Your task to perform on an android device: allow notifications from all sites in the chrome app Image 0: 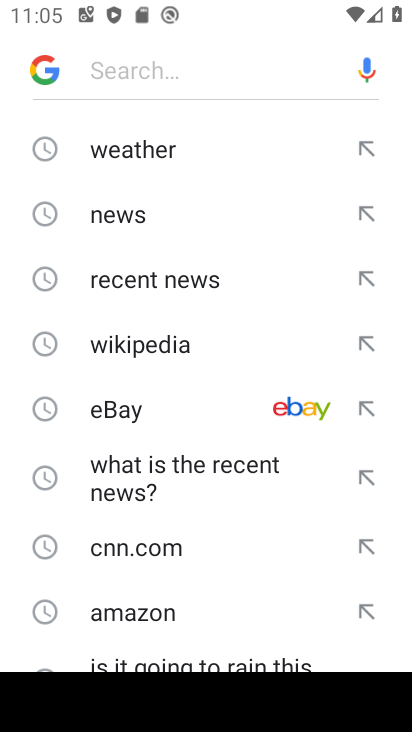
Step 0: click (355, 223)
Your task to perform on an android device: allow notifications from all sites in the chrome app Image 1: 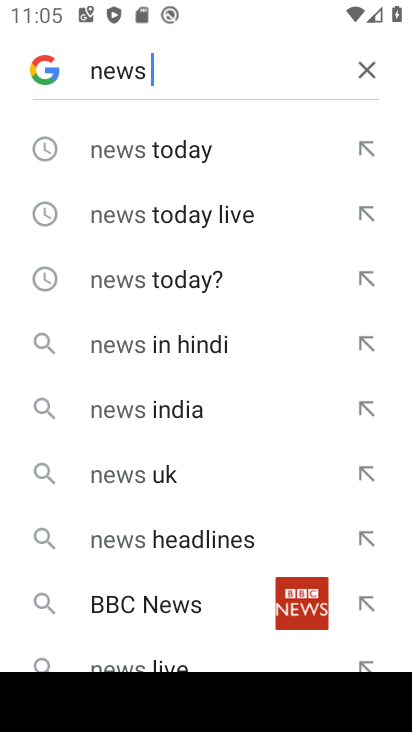
Step 1: press back button
Your task to perform on an android device: allow notifications from all sites in the chrome app Image 2: 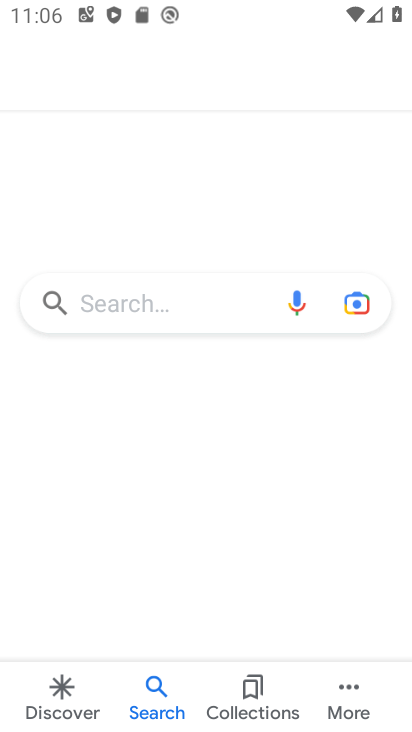
Step 2: drag from (265, 183) to (307, 417)
Your task to perform on an android device: allow notifications from all sites in the chrome app Image 3: 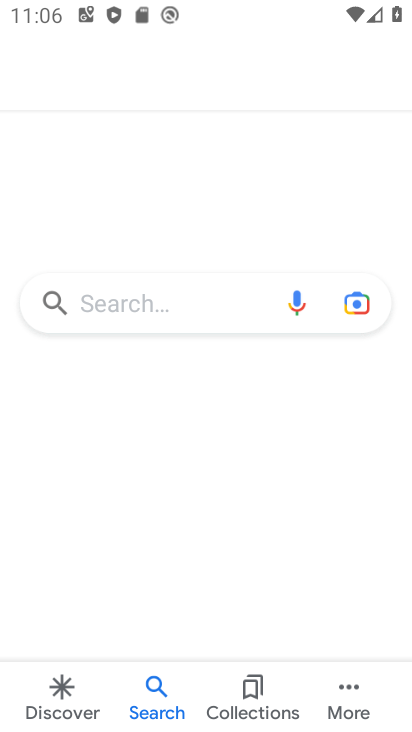
Step 3: drag from (295, 179) to (394, 407)
Your task to perform on an android device: allow notifications from all sites in the chrome app Image 4: 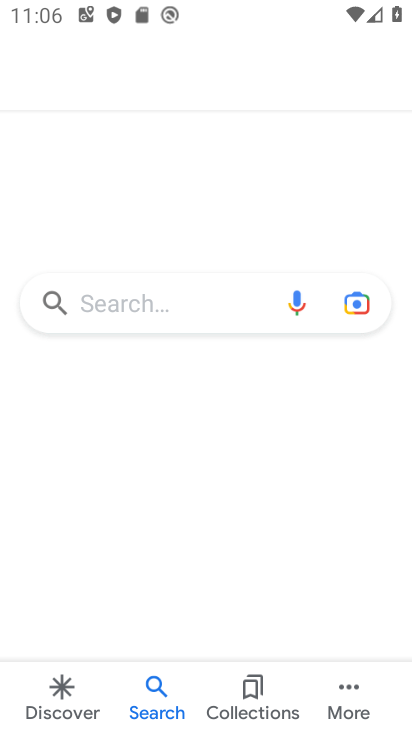
Step 4: press home button
Your task to perform on an android device: allow notifications from all sites in the chrome app Image 5: 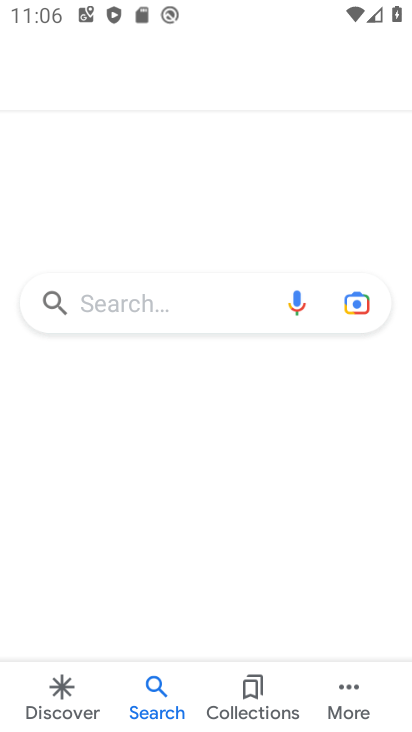
Step 5: drag from (394, 407) to (406, 470)
Your task to perform on an android device: allow notifications from all sites in the chrome app Image 6: 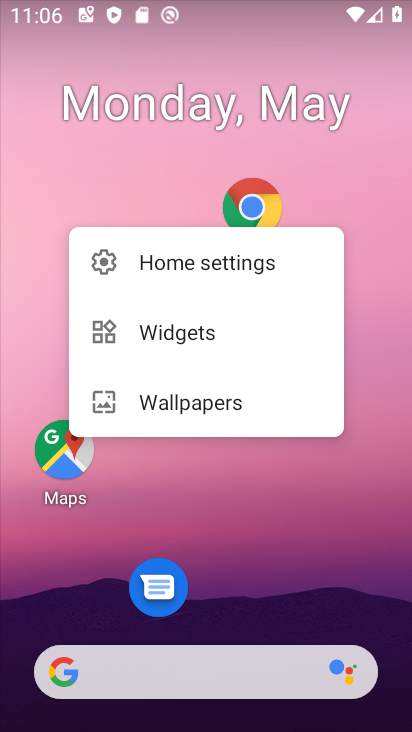
Step 6: drag from (313, 630) to (158, 27)
Your task to perform on an android device: allow notifications from all sites in the chrome app Image 7: 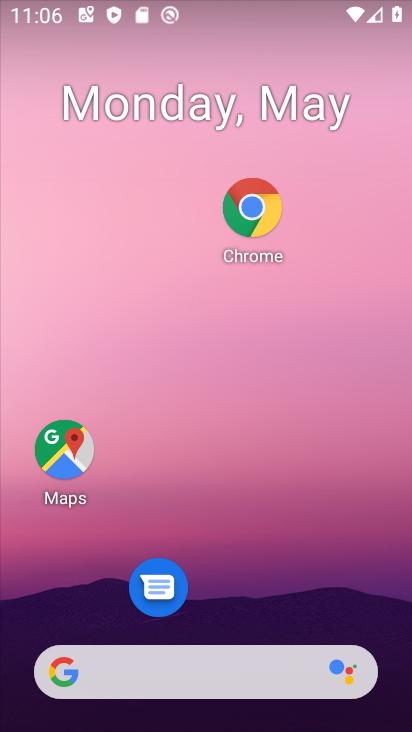
Step 7: click (44, 178)
Your task to perform on an android device: allow notifications from all sites in the chrome app Image 8: 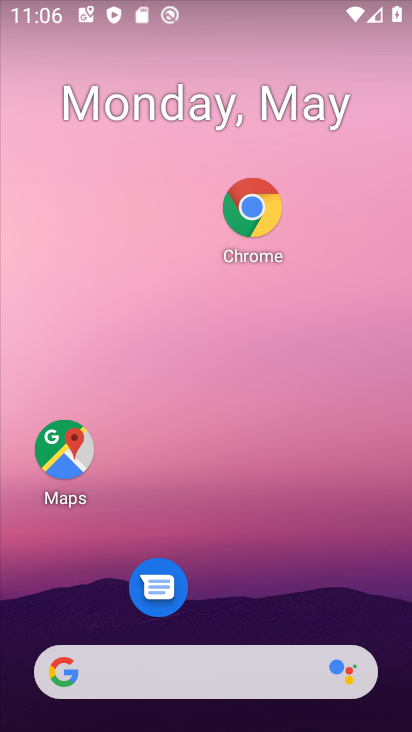
Step 8: drag from (278, 566) to (199, 2)
Your task to perform on an android device: allow notifications from all sites in the chrome app Image 9: 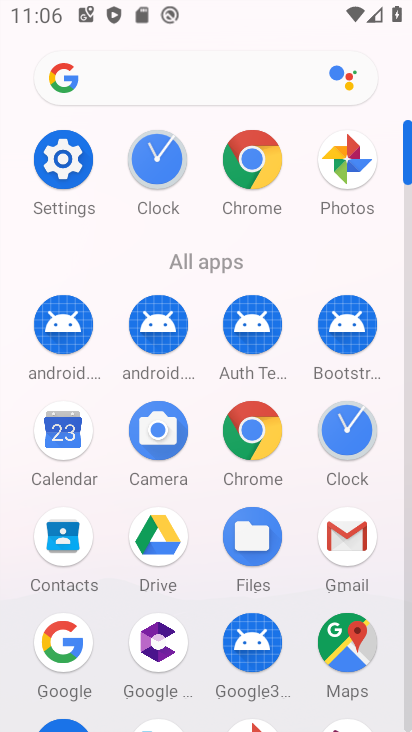
Step 9: click (264, 221)
Your task to perform on an android device: allow notifications from all sites in the chrome app Image 10: 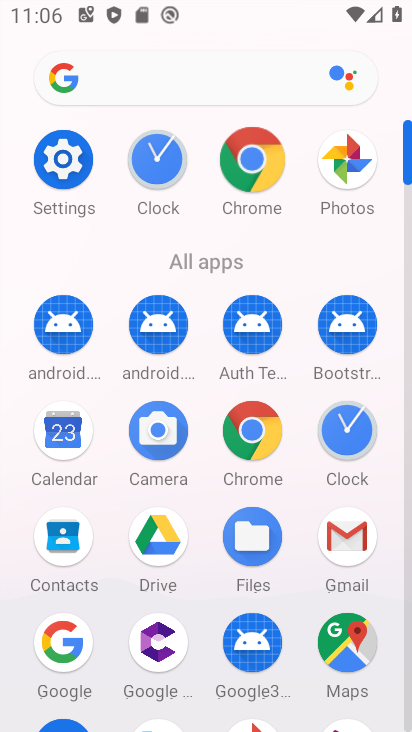
Step 10: click (259, 184)
Your task to perform on an android device: allow notifications from all sites in the chrome app Image 11: 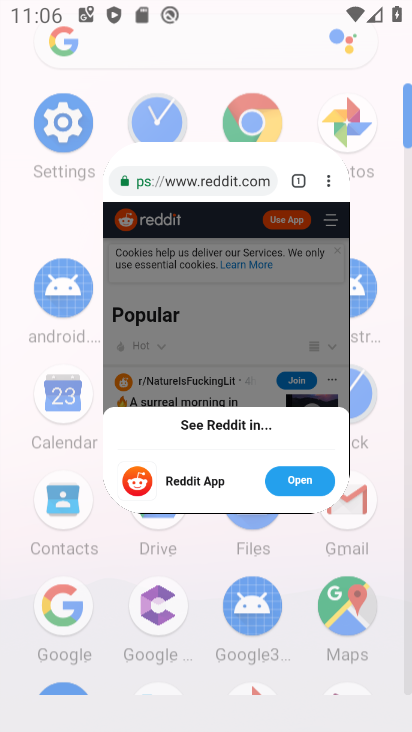
Step 11: click (264, 175)
Your task to perform on an android device: allow notifications from all sites in the chrome app Image 12: 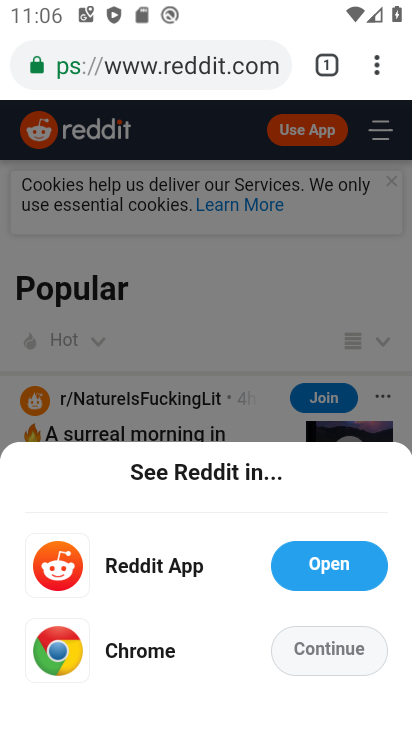
Step 12: drag from (375, 61) to (144, 637)
Your task to perform on an android device: allow notifications from all sites in the chrome app Image 13: 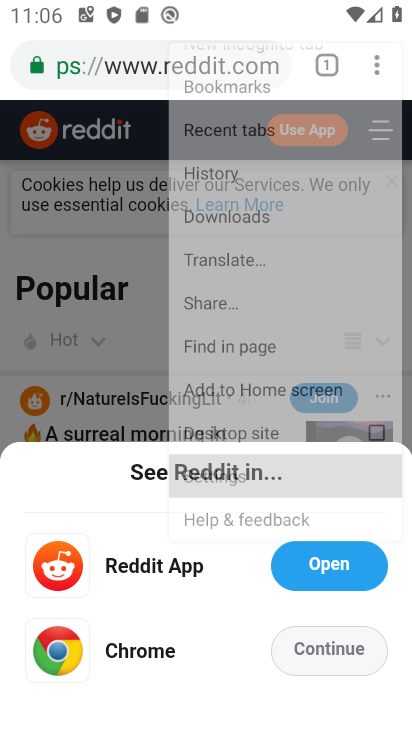
Step 13: click (150, 635)
Your task to perform on an android device: allow notifications from all sites in the chrome app Image 14: 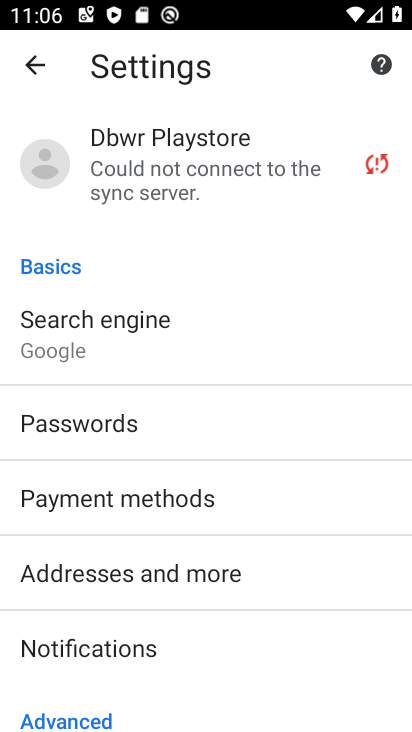
Step 14: drag from (161, 591) to (151, 294)
Your task to perform on an android device: allow notifications from all sites in the chrome app Image 15: 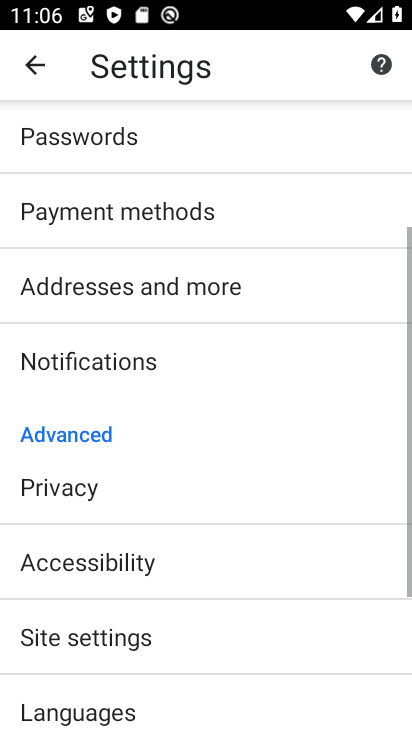
Step 15: drag from (167, 480) to (161, 306)
Your task to perform on an android device: allow notifications from all sites in the chrome app Image 16: 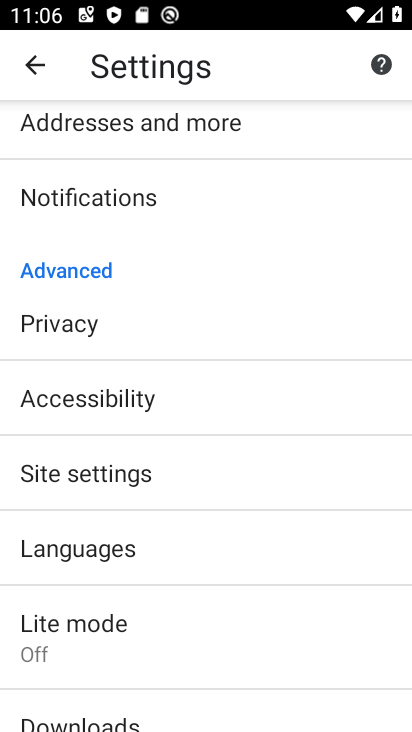
Step 16: drag from (147, 582) to (98, 181)
Your task to perform on an android device: allow notifications from all sites in the chrome app Image 17: 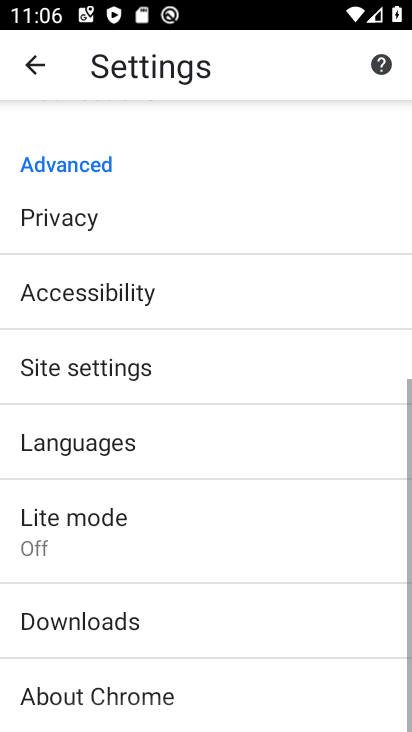
Step 17: drag from (137, 464) to (137, 295)
Your task to perform on an android device: allow notifications from all sites in the chrome app Image 18: 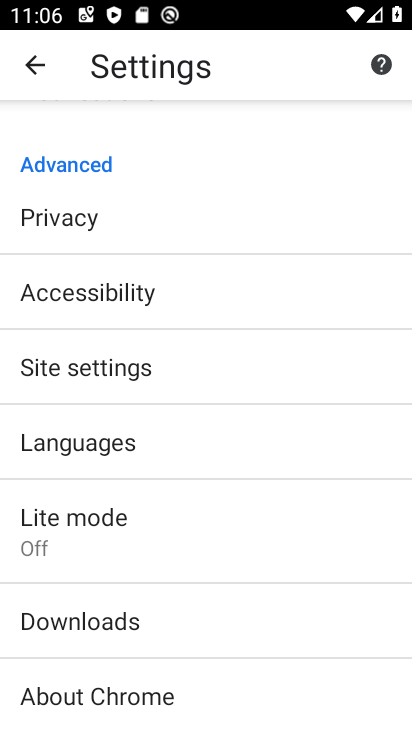
Step 18: drag from (80, 658) to (80, 314)
Your task to perform on an android device: allow notifications from all sites in the chrome app Image 19: 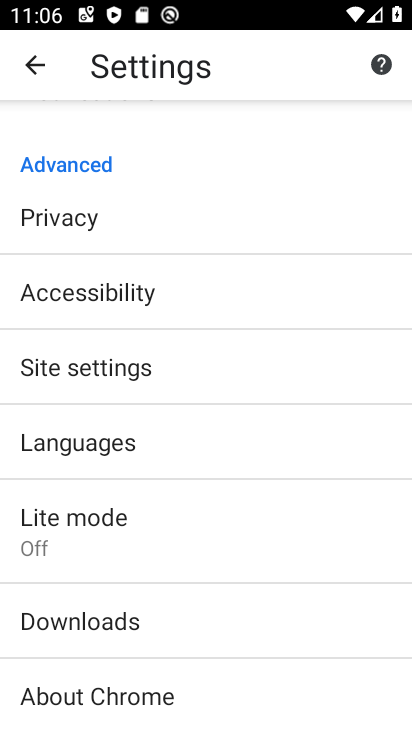
Step 19: drag from (108, 372) to (103, 159)
Your task to perform on an android device: allow notifications from all sites in the chrome app Image 20: 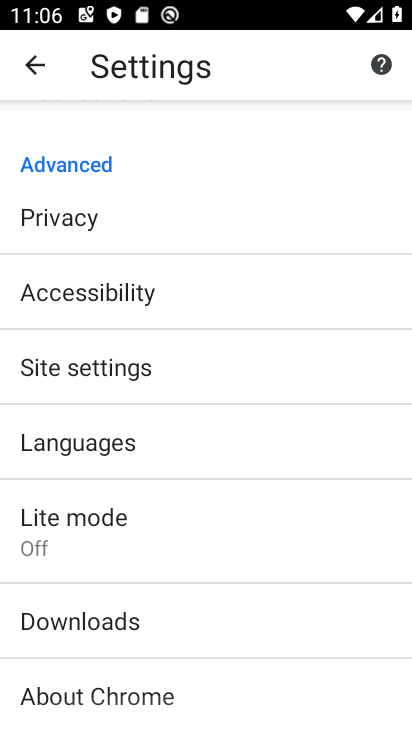
Step 20: drag from (106, 410) to (106, 132)
Your task to perform on an android device: allow notifications from all sites in the chrome app Image 21: 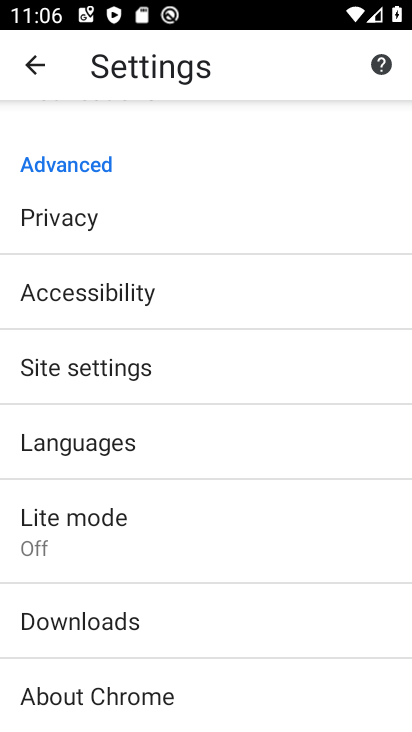
Step 21: drag from (100, 294) to (110, 706)
Your task to perform on an android device: allow notifications from all sites in the chrome app Image 22: 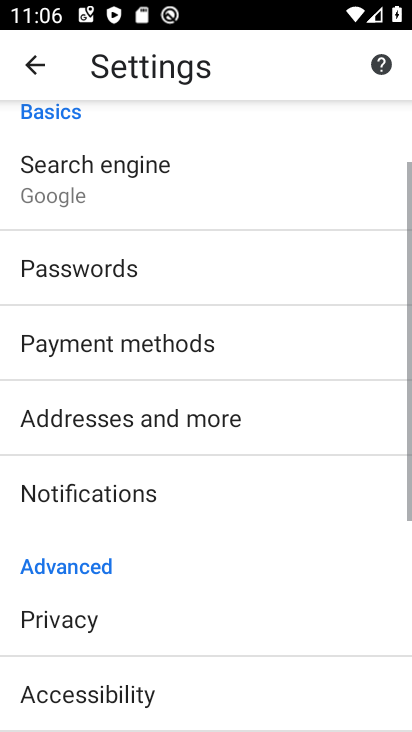
Step 22: drag from (133, 317) to (165, 657)
Your task to perform on an android device: allow notifications from all sites in the chrome app Image 23: 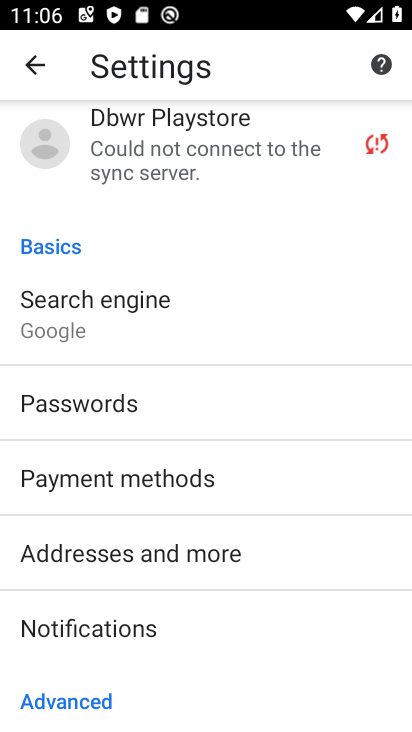
Step 23: drag from (91, 650) to (63, 154)
Your task to perform on an android device: allow notifications from all sites in the chrome app Image 24: 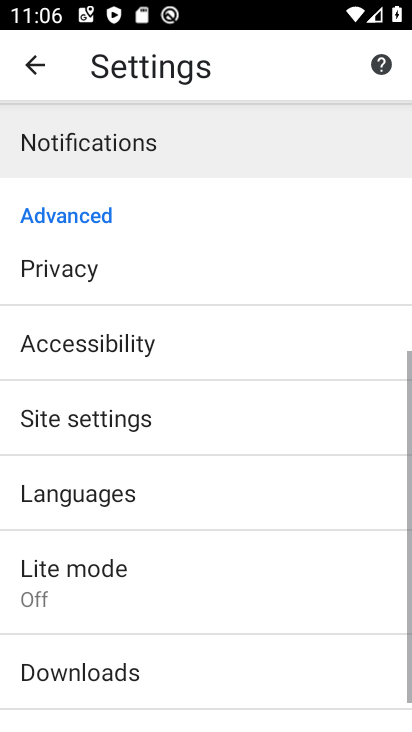
Step 24: drag from (66, 446) to (48, 238)
Your task to perform on an android device: allow notifications from all sites in the chrome app Image 25: 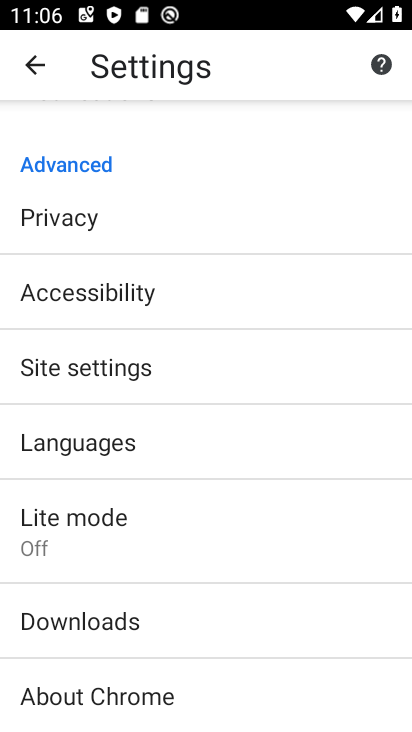
Step 25: drag from (156, 242) to (159, 560)
Your task to perform on an android device: allow notifications from all sites in the chrome app Image 26: 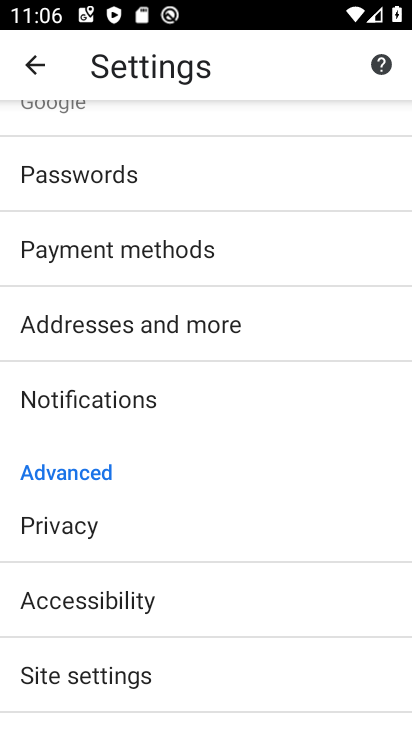
Step 26: click (91, 407)
Your task to perform on an android device: allow notifications from all sites in the chrome app Image 27: 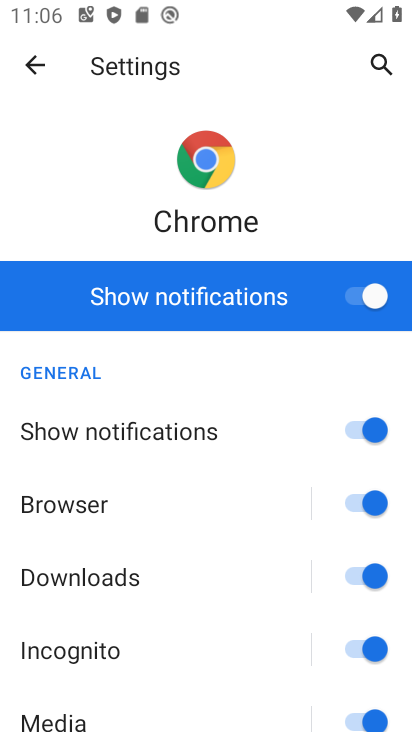
Step 27: task complete